Your task to perform on an android device: allow cookies in the chrome app Image 0: 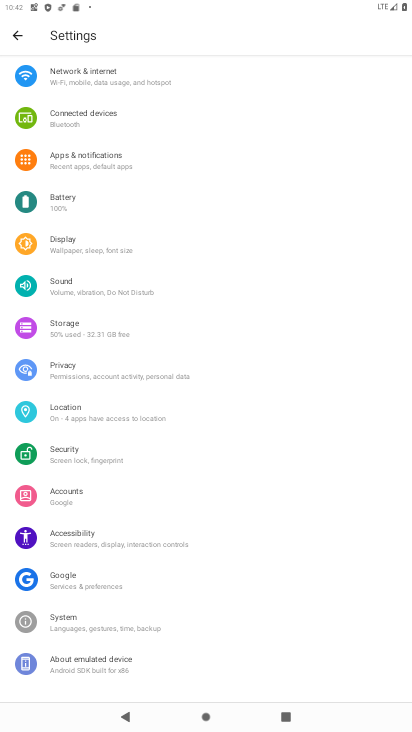
Step 0: press home button
Your task to perform on an android device: allow cookies in the chrome app Image 1: 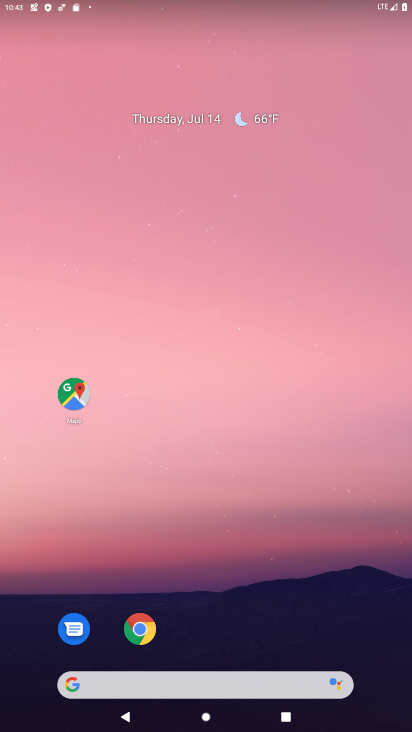
Step 1: click (144, 624)
Your task to perform on an android device: allow cookies in the chrome app Image 2: 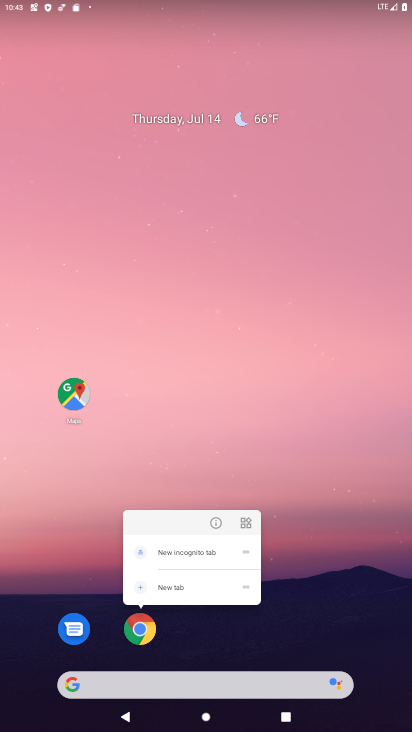
Step 2: click (146, 623)
Your task to perform on an android device: allow cookies in the chrome app Image 3: 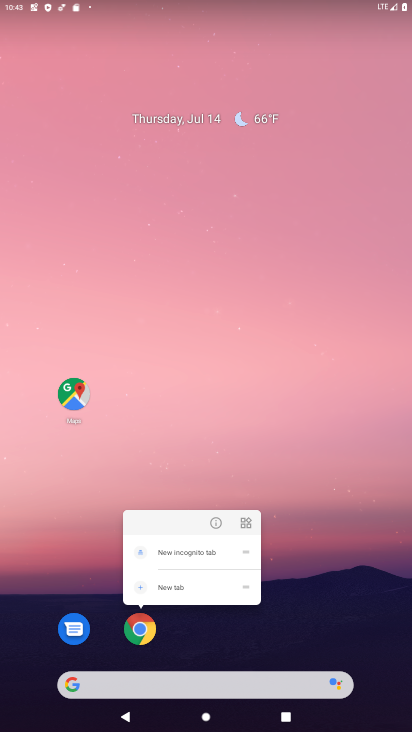
Step 3: click (146, 623)
Your task to perform on an android device: allow cookies in the chrome app Image 4: 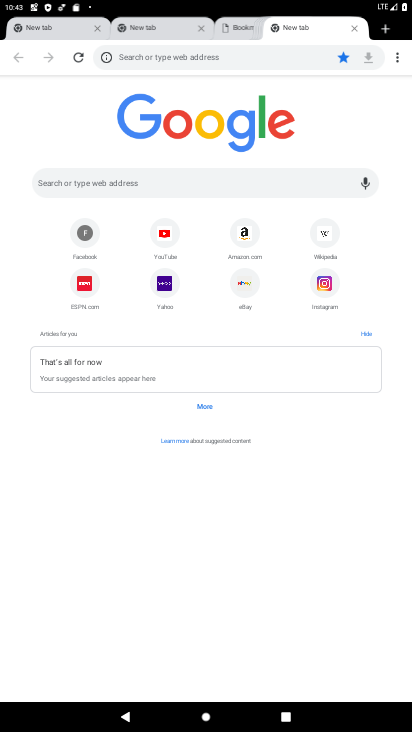
Step 4: drag from (396, 59) to (277, 263)
Your task to perform on an android device: allow cookies in the chrome app Image 5: 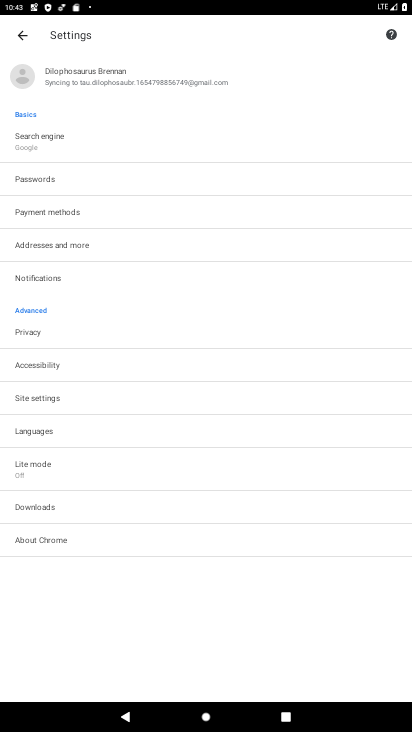
Step 5: click (46, 401)
Your task to perform on an android device: allow cookies in the chrome app Image 6: 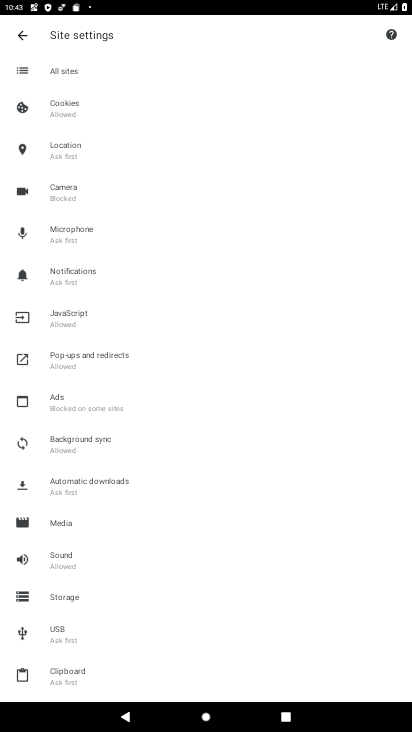
Step 6: drag from (127, 570) to (113, 207)
Your task to perform on an android device: allow cookies in the chrome app Image 7: 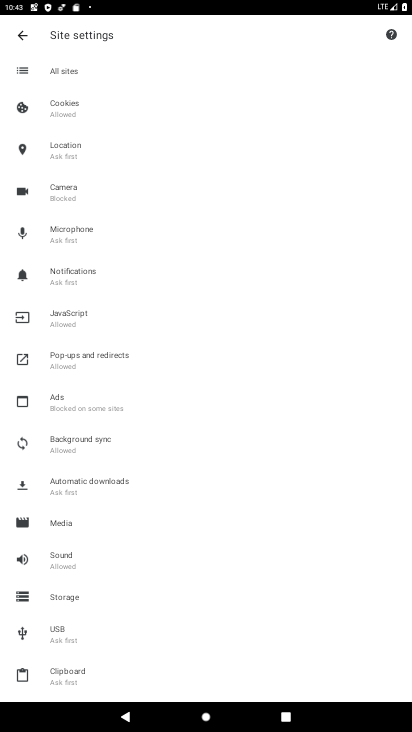
Step 7: click (52, 113)
Your task to perform on an android device: allow cookies in the chrome app Image 8: 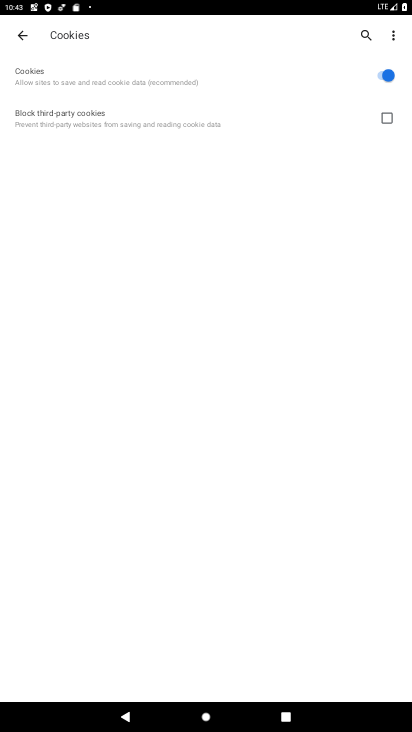
Step 8: task complete